Your task to perform on an android device: Open calendar and show me the second week of next month Image 0: 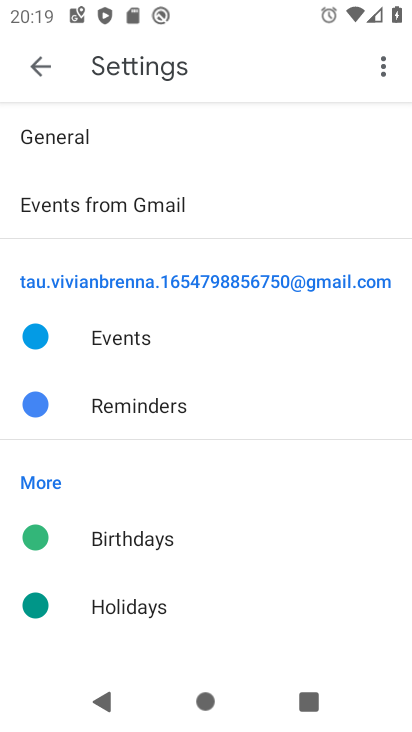
Step 0: press home button
Your task to perform on an android device: Open calendar and show me the second week of next month Image 1: 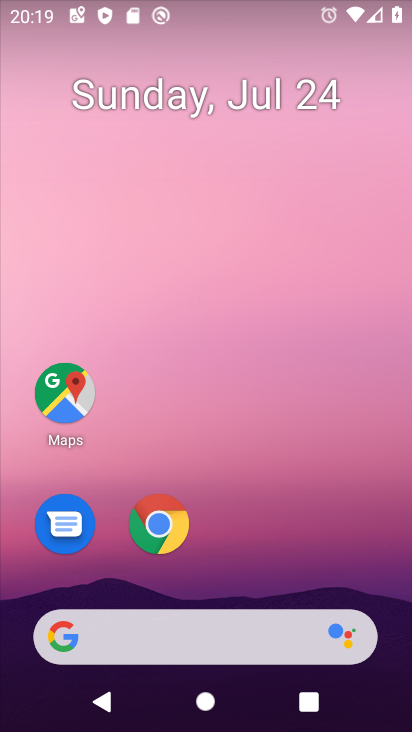
Step 1: drag from (241, 563) to (266, 33)
Your task to perform on an android device: Open calendar and show me the second week of next month Image 2: 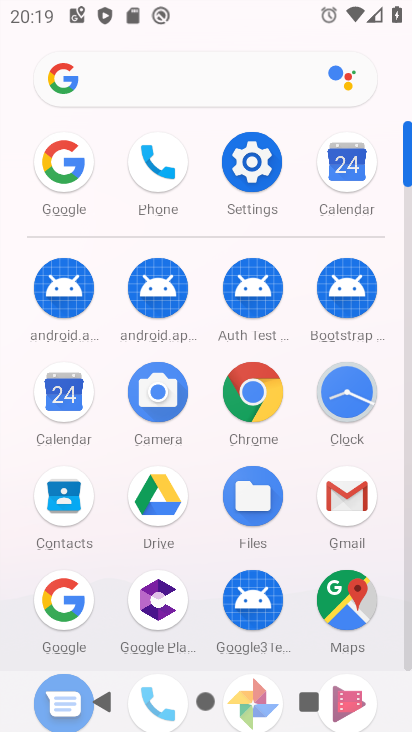
Step 2: click (339, 172)
Your task to perform on an android device: Open calendar and show me the second week of next month Image 3: 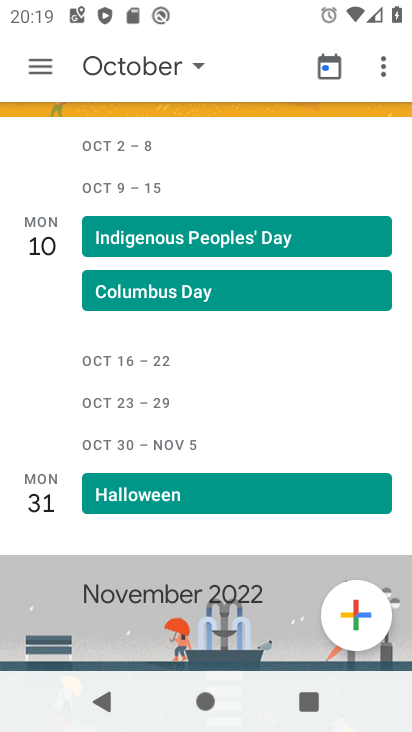
Step 3: click (43, 56)
Your task to perform on an android device: Open calendar and show me the second week of next month Image 4: 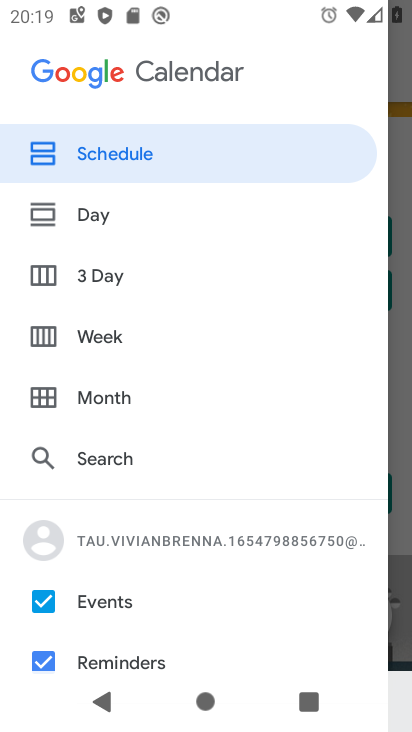
Step 4: click (43, 331)
Your task to perform on an android device: Open calendar and show me the second week of next month Image 5: 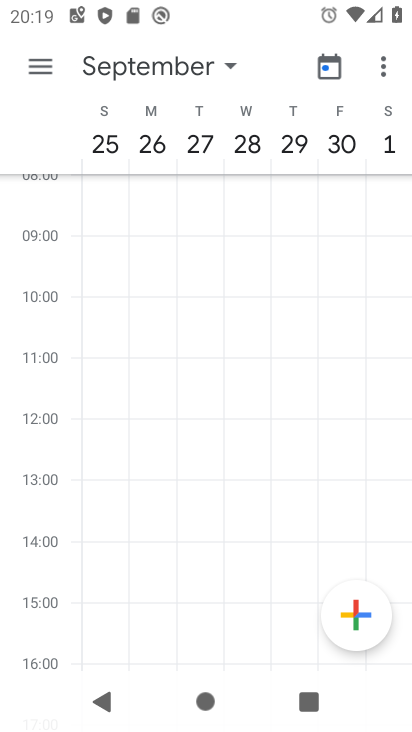
Step 5: drag from (385, 324) to (5, 291)
Your task to perform on an android device: Open calendar and show me the second week of next month Image 6: 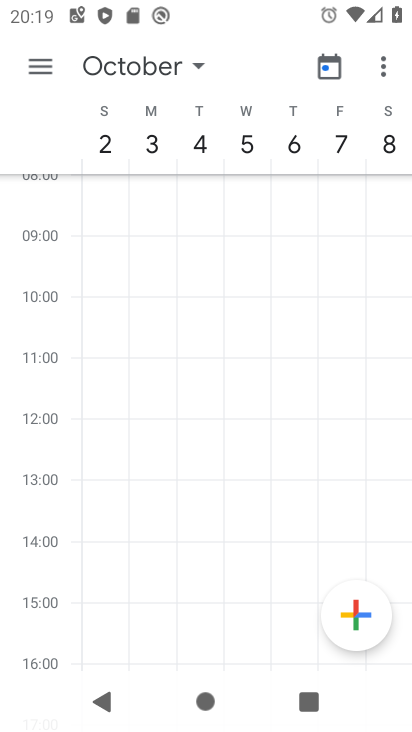
Step 6: drag from (98, 265) to (404, 307)
Your task to perform on an android device: Open calendar and show me the second week of next month Image 7: 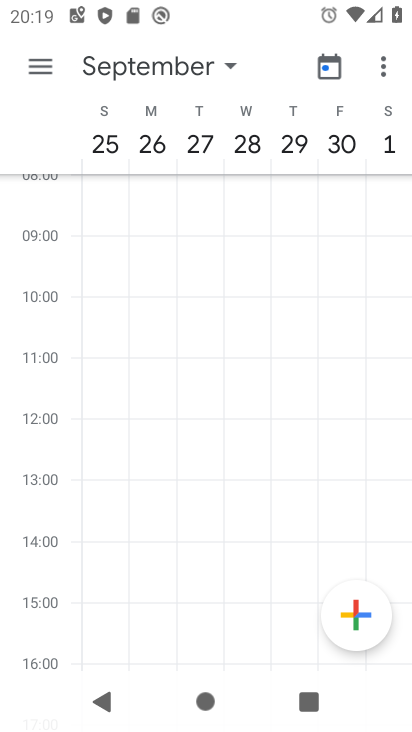
Step 7: drag from (106, 253) to (401, 307)
Your task to perform on an android device: Open calendar and show me the second week of next month Image 8: 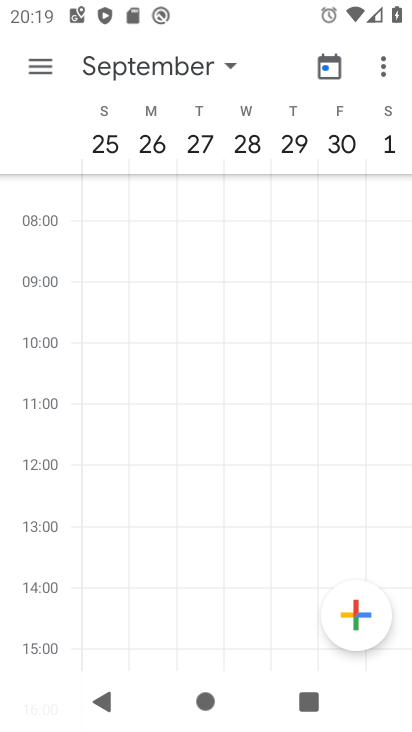
Step 8: drag from (92, 233) to (399, 258)
Your task to perform on an android device: Open calendar and show me the second week of next month Image 9: 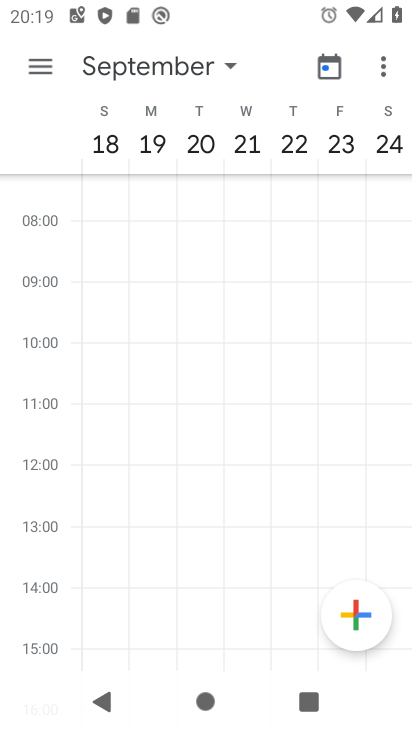
Step 9: drag from (104, 255) to (404, 270)
Your task to perform on an android device: Open calendar and show me the second week of next month Image 10: 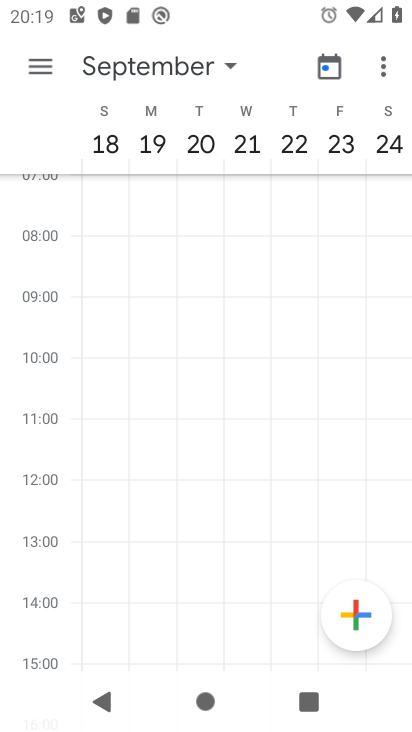
Step 10: click (36, 73)
Your task to perform on an android device: Open calendar and show me the second week of next month Image 11: 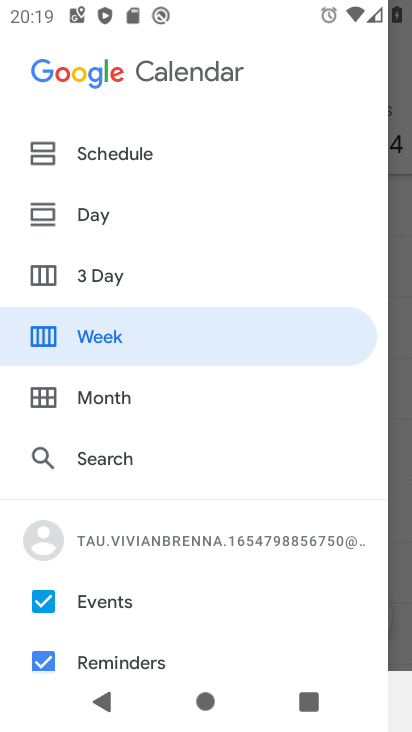
Step 11: click (101, 391)
Your task to perform on an android device: Open calendar and show me the second week of next month Image 12: 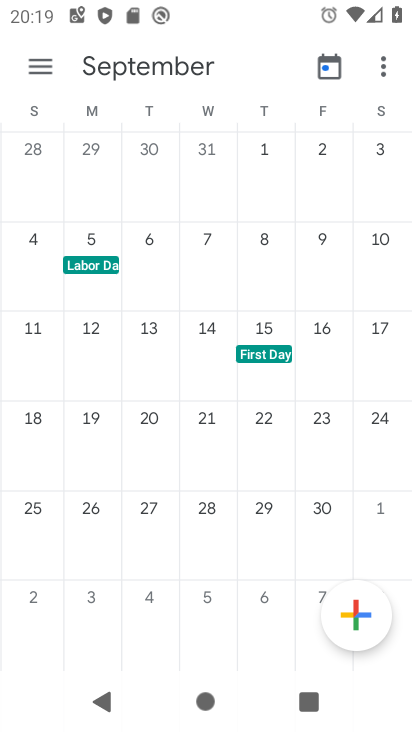
Step 12: drag from (93, 347) to (398, 380)
Your task to perform on an android device: Open calendar and show me the second week of next month Image 13: 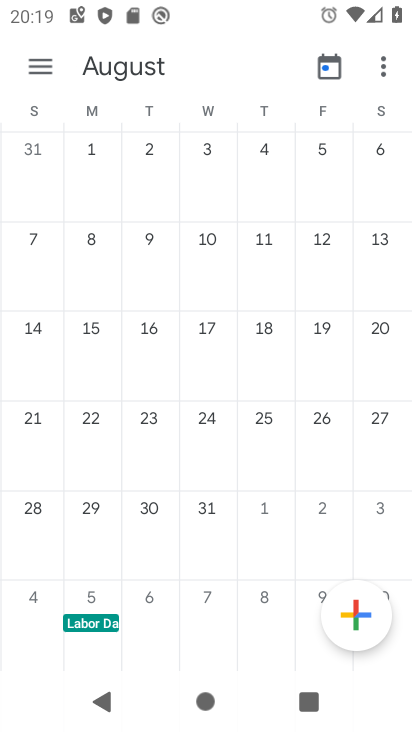
Step 13: drag from (36, 359) to (398, 393)
Your task to perform on an android device: Open calendar and show me the second week of next month Image 14: 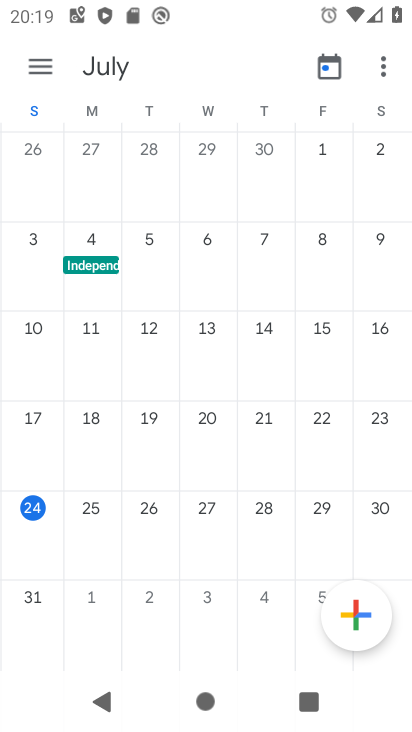
Step 14: drag from (381, 272) to (1, 265)
Your task to perform on an android device: Open calendar and show me the second week of next month Image 15: 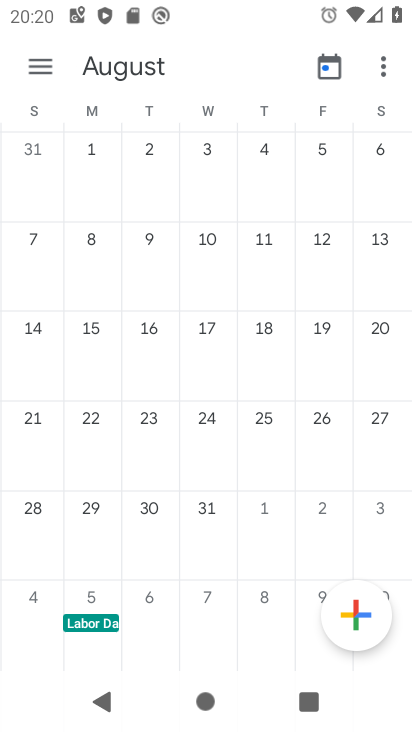
Step 15: click (30, 322)
Your task to perform on an android device: Open calendar and show me the second week of next month Image 16: 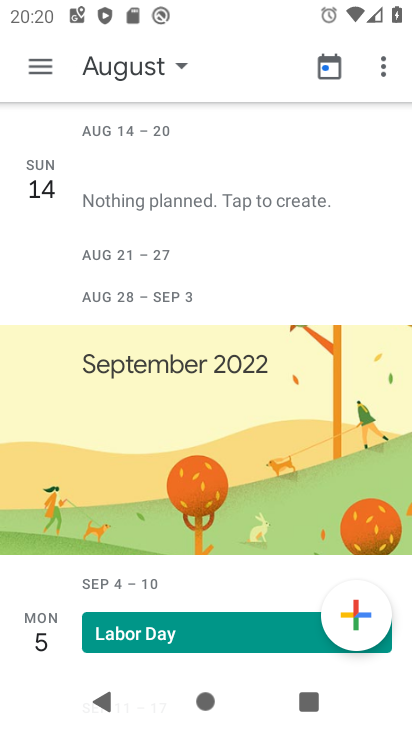
Step 16: click (39, 63)
Your task to perform on an android device: Open calendar and show me the second week of next month Image 17: 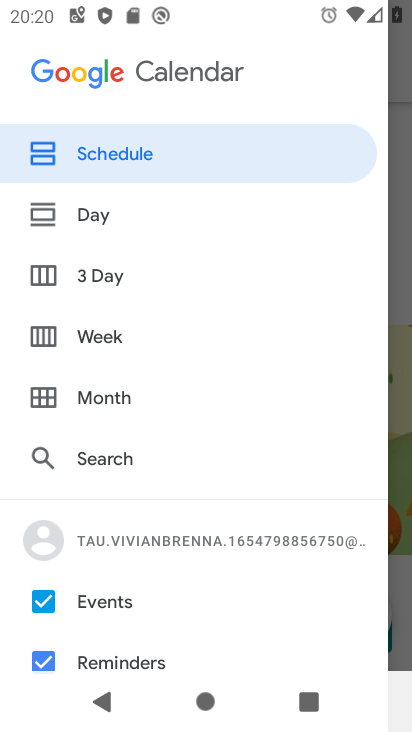
Step 17: click (43, 333)
Your task to perform on an android device: Open calendar and show me the second week of next month Image 18: 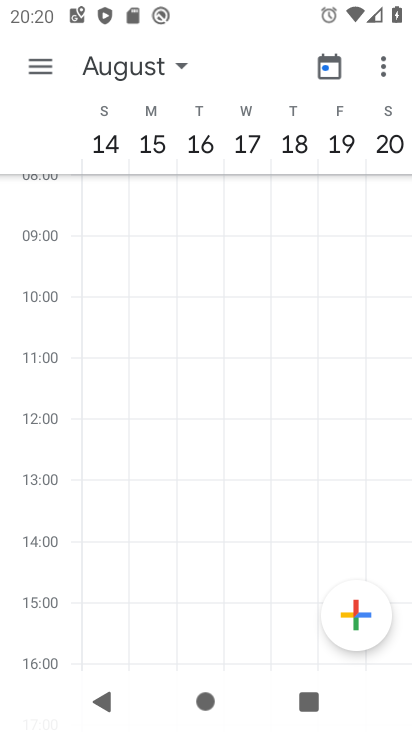
Step 18: task complete